Your task to perform on an android device: Search for flights from NYC to London Image 0: 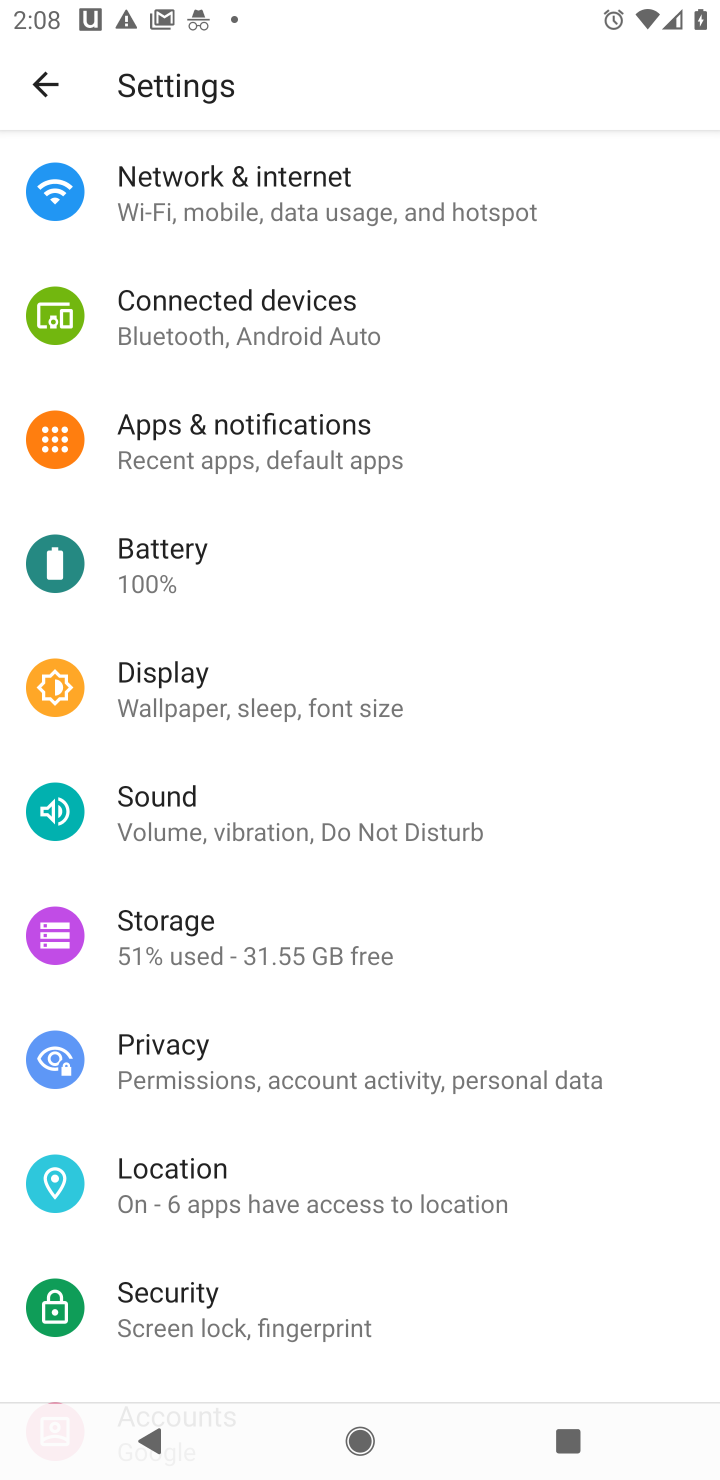
Step 0: press home button
Your task to perform on an android device: Search for flights from NYC to London Image 1: 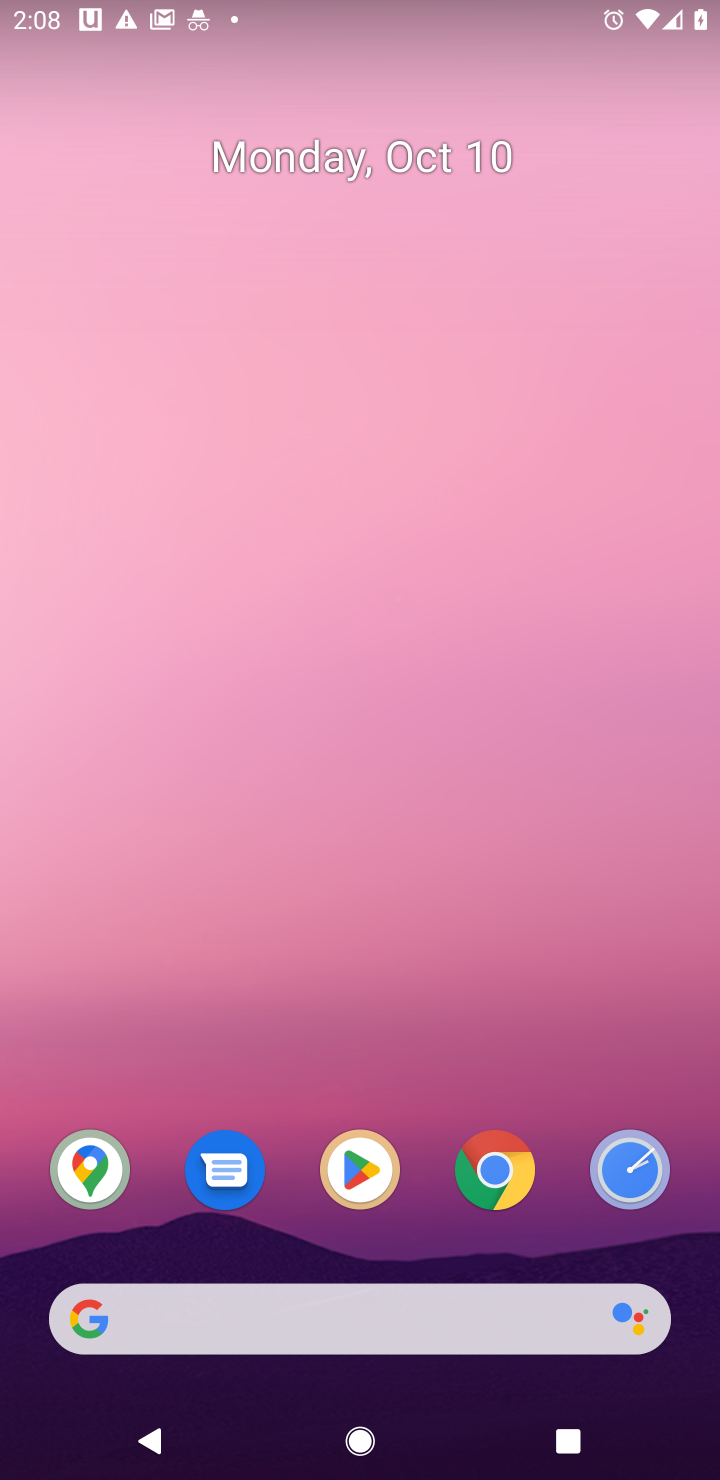
Step 1: click (512, 1184)
Your task to perform on an android device: Search for flights from NYC to London Image 2: 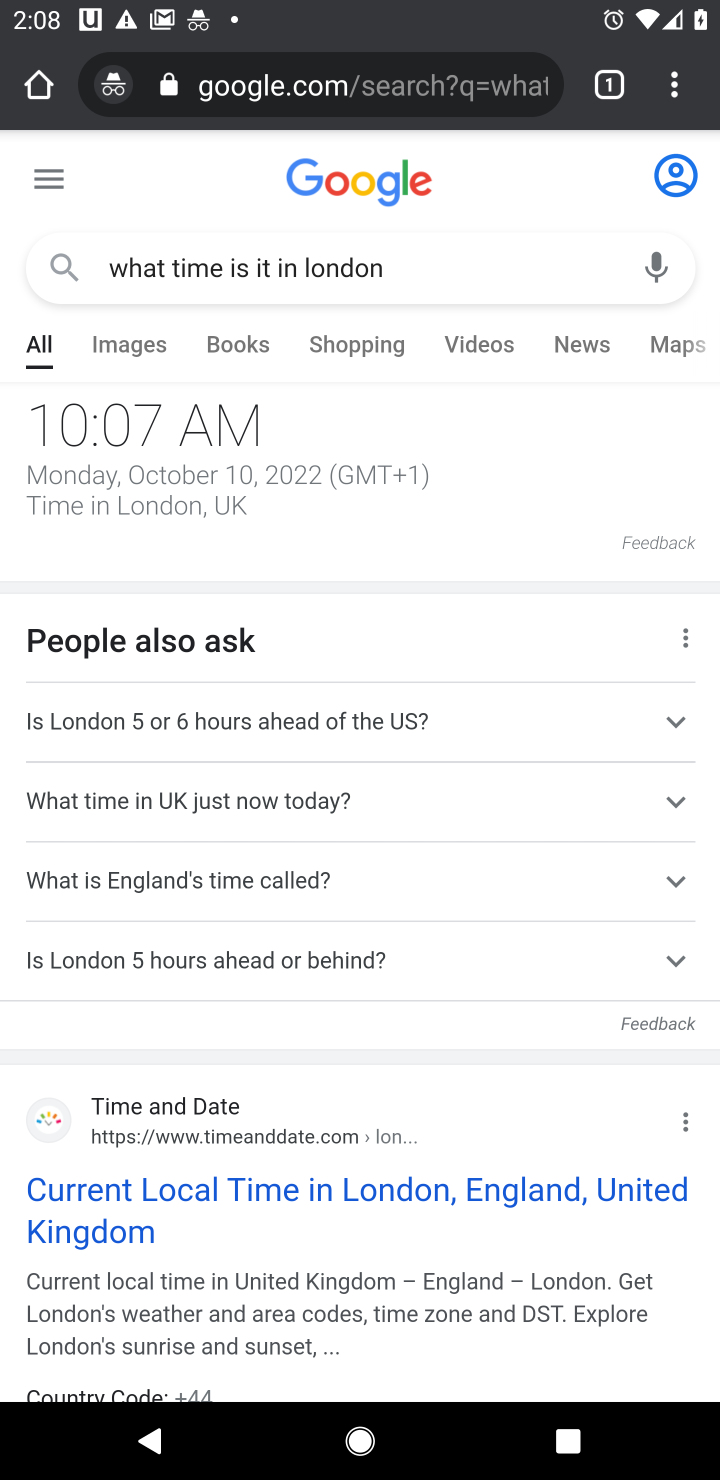
Step 2: click (447, 86)
Your task to perform on an android device: Search for flights from NYC to London Image 3: 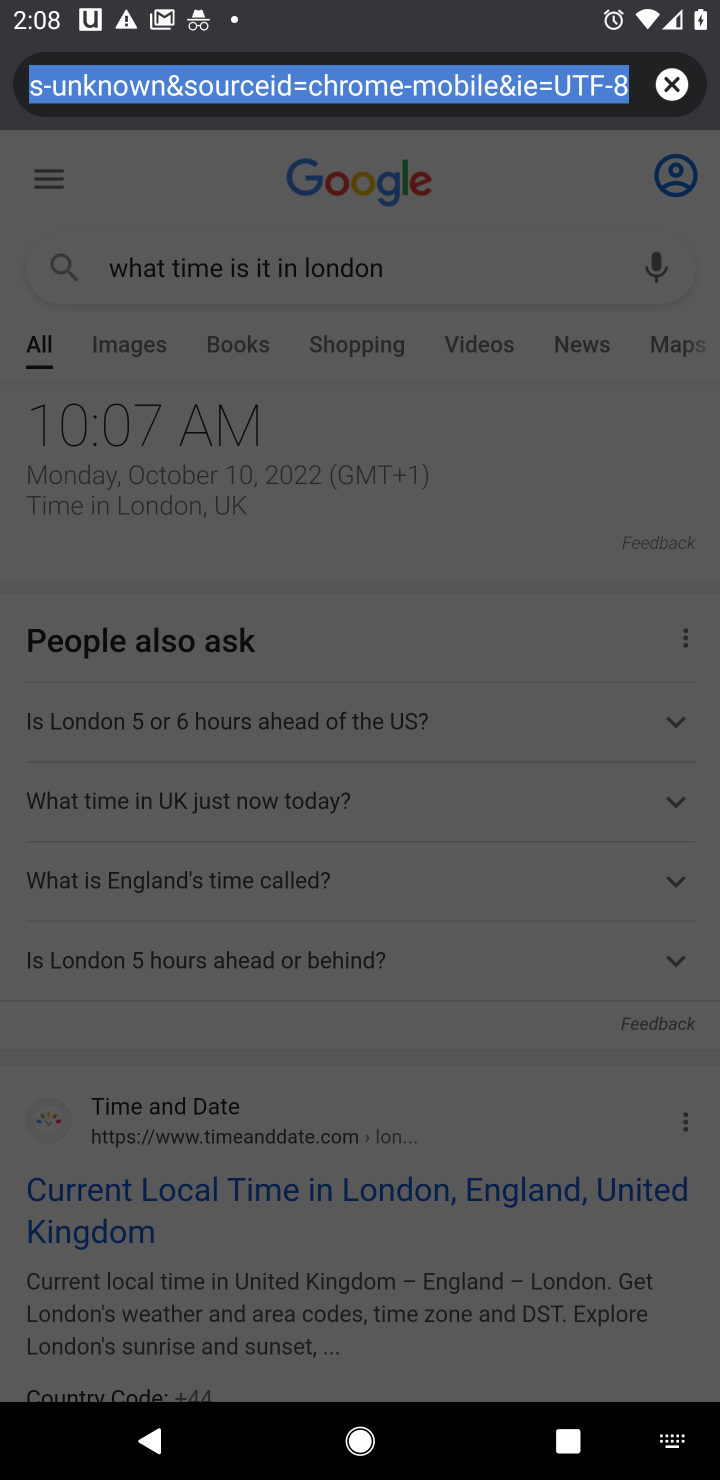
Step 3: click (675, 88)
Your task to perform on an android device: Search for flights from NYC to London Image 4: 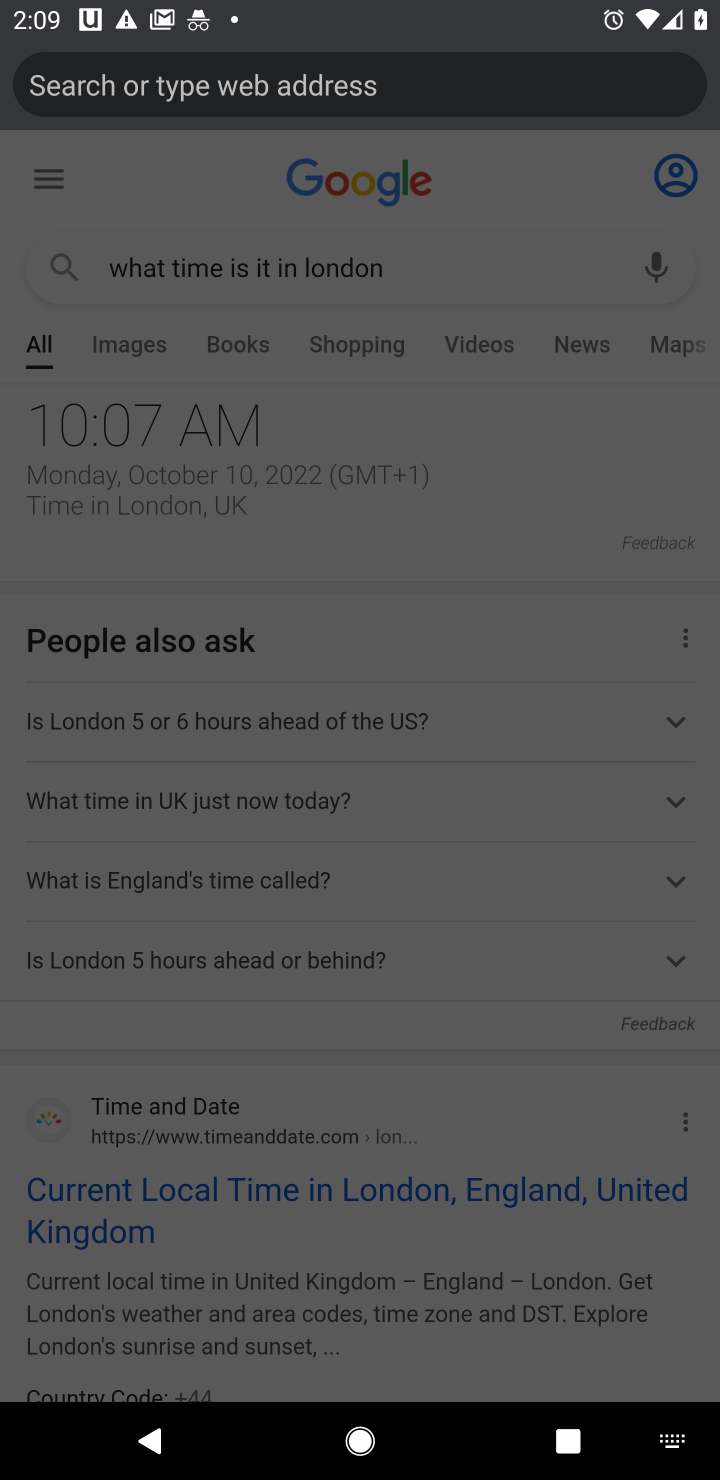
Step 4: type "flights from NYC to London"
Your task to perform on an android device: Search for flights from NYC to London Image 5: 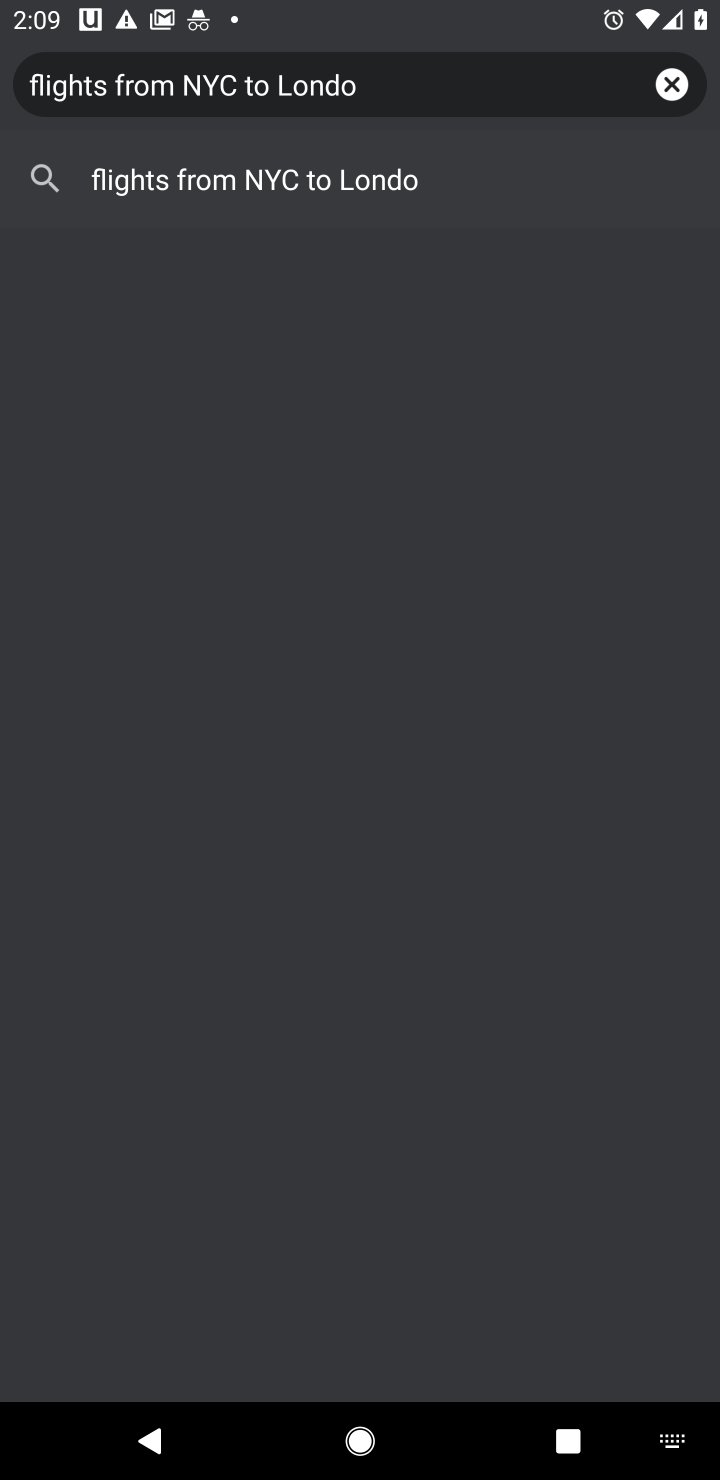
Step 5: click (404, 175)
Your task to perform on an android device: Search for flights from NYC to London Image 6: 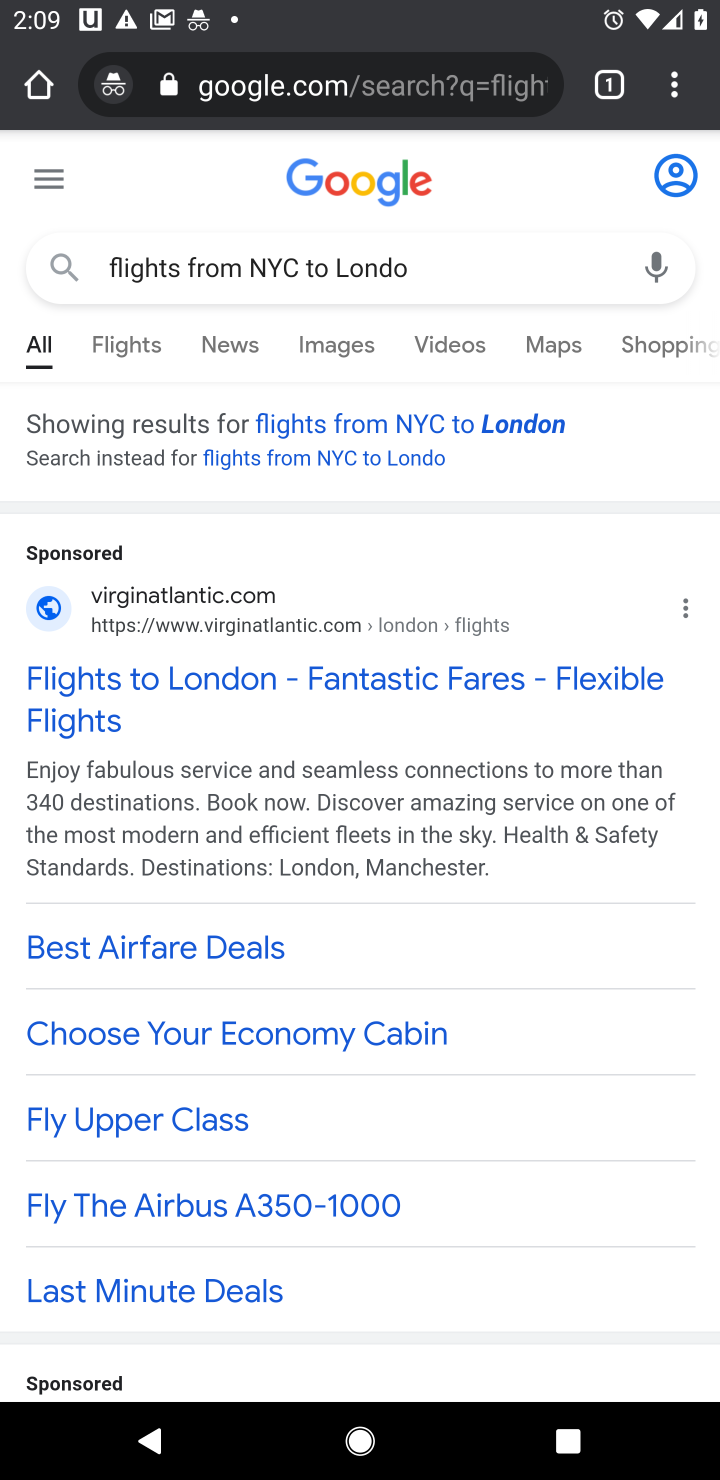
Step 6: click (452, 676)
Your task to perform on an android device: Search for flights from NYC to London Image 7: 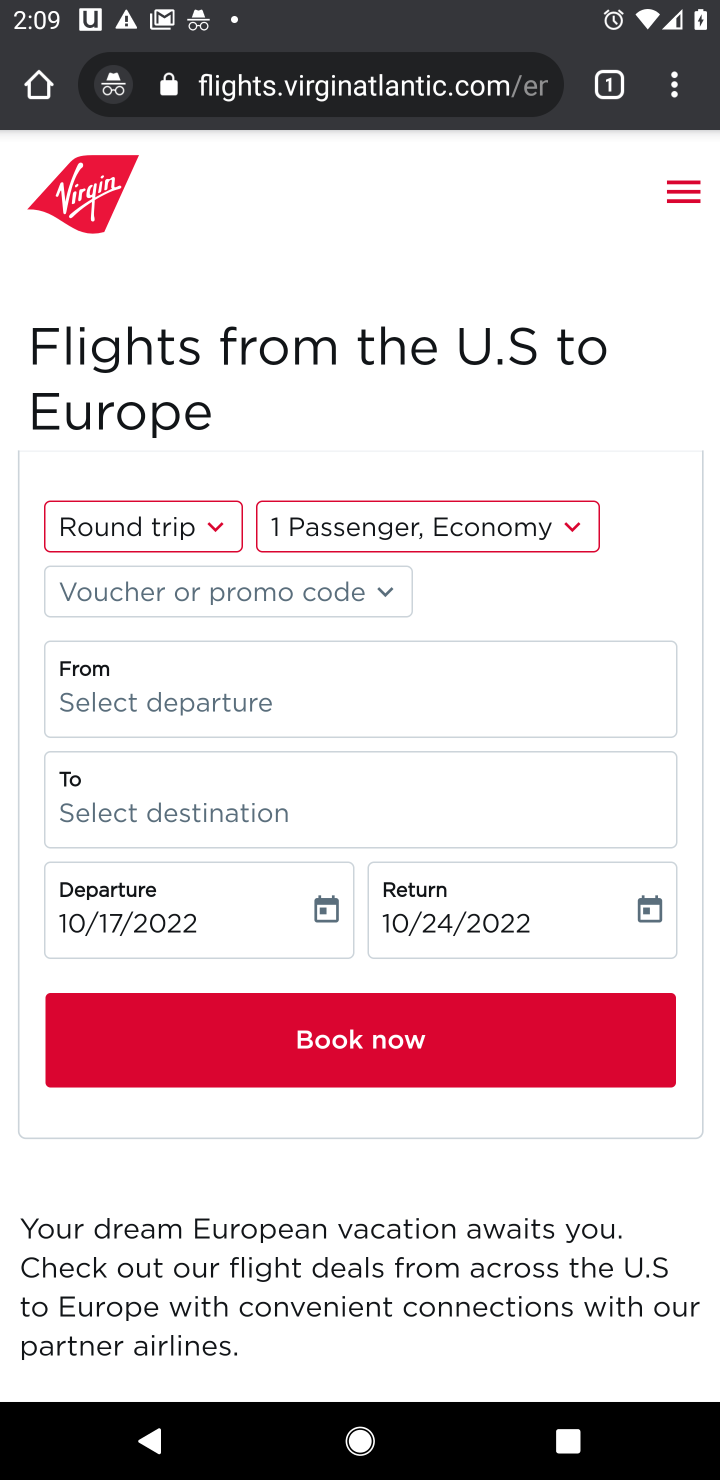
Step 7: task complete